Your task to perform on an android device: Open eBay Image 0: 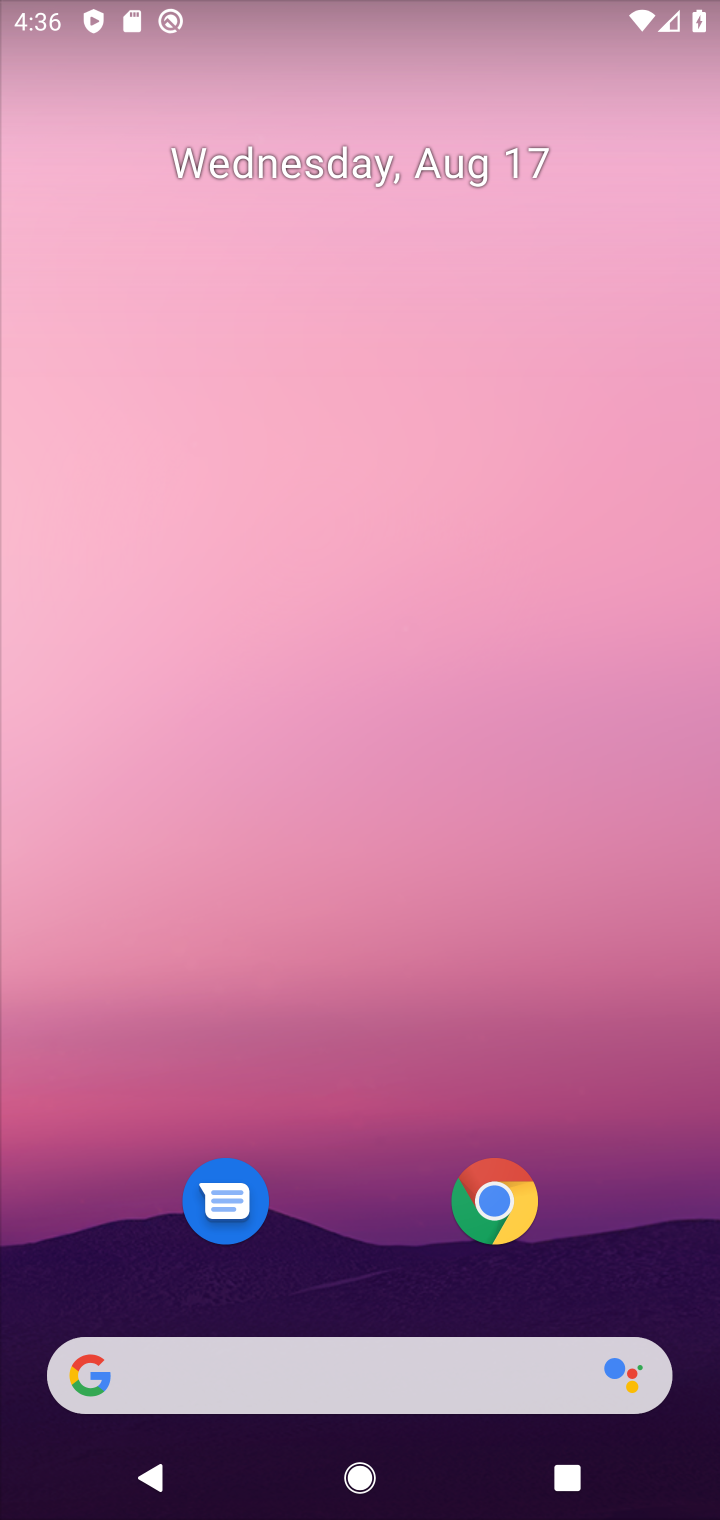
Step 0: click (71, 1382)
Your task to perform on an android device: Open eBay Image 1: 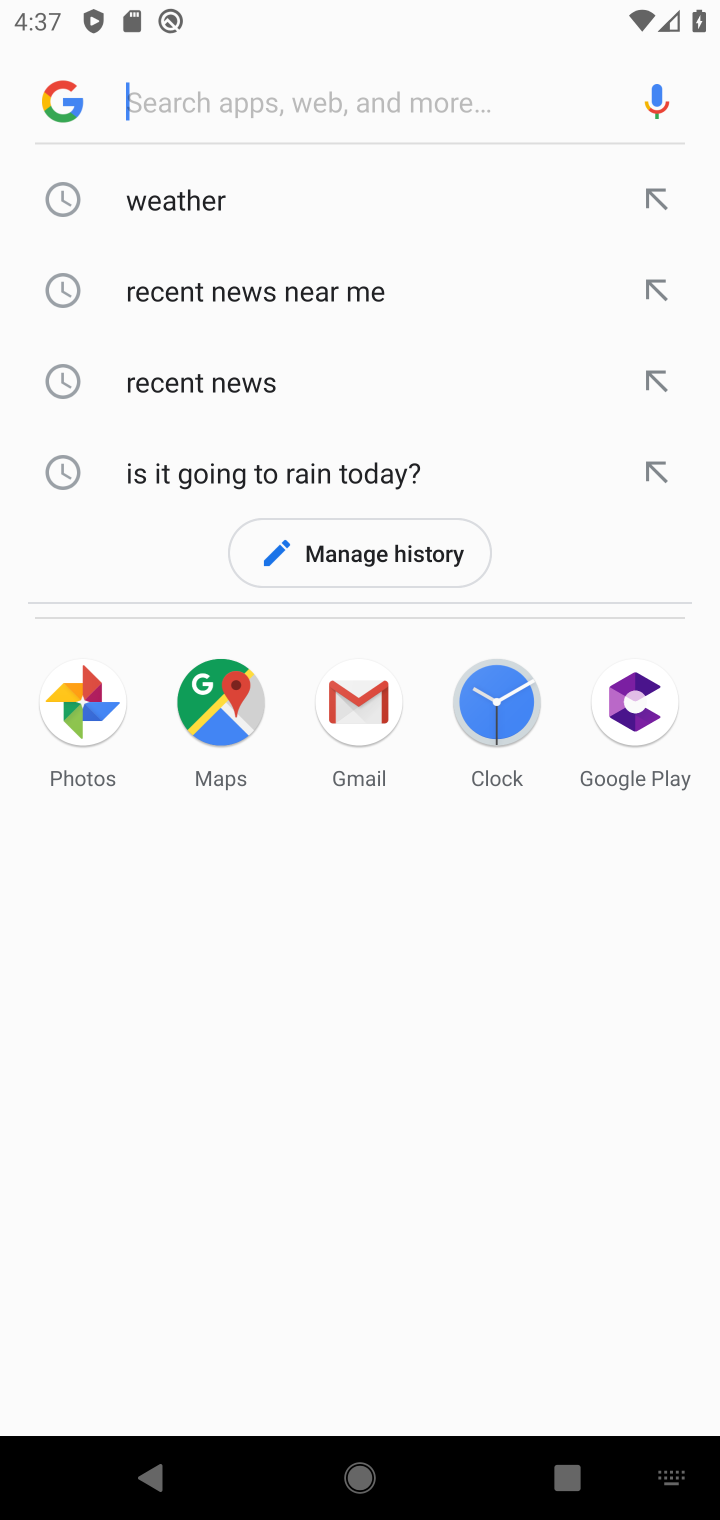
Step 1: type "eBay"
Your task to perform on an android device: Open eBay Image 2: 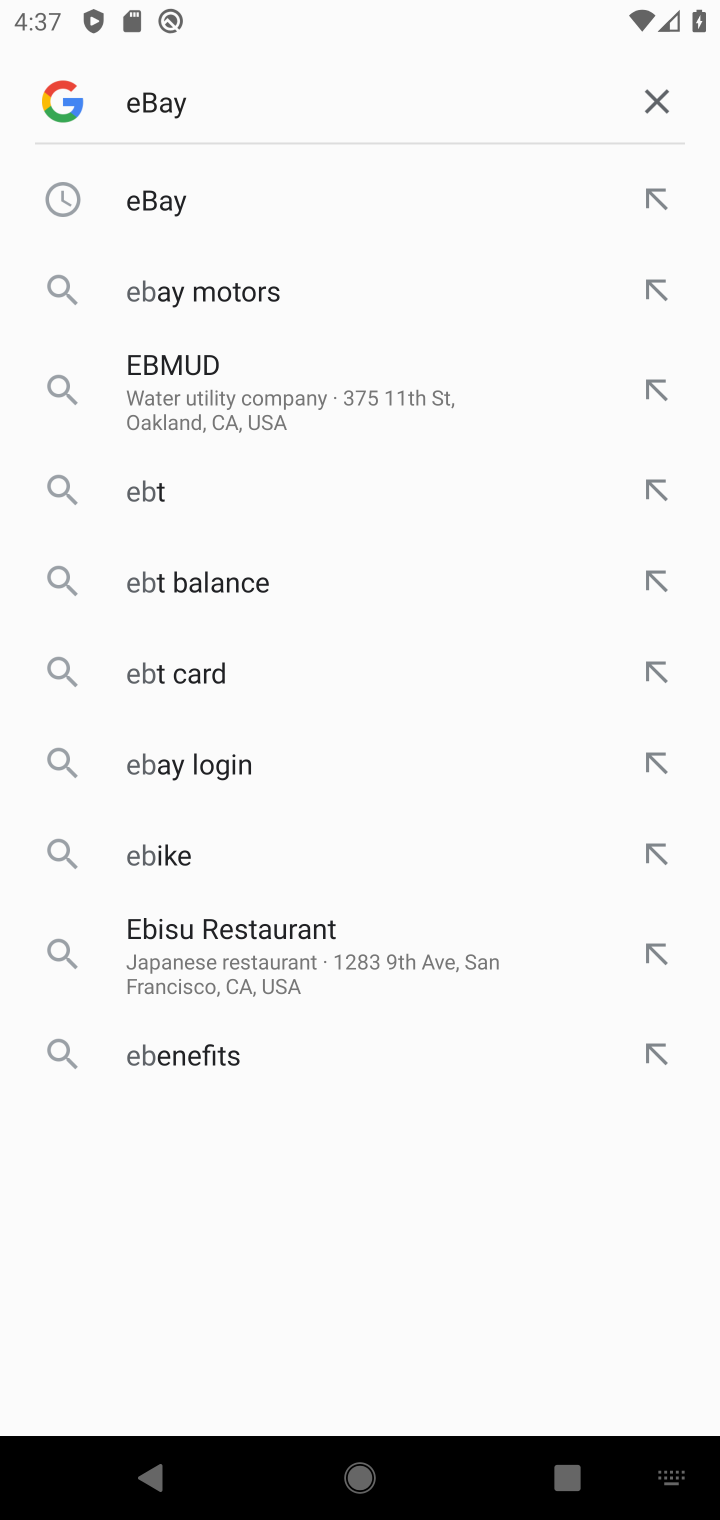
Step 2: press enter
Your task to perform on an android device: Open eBay Image 3: 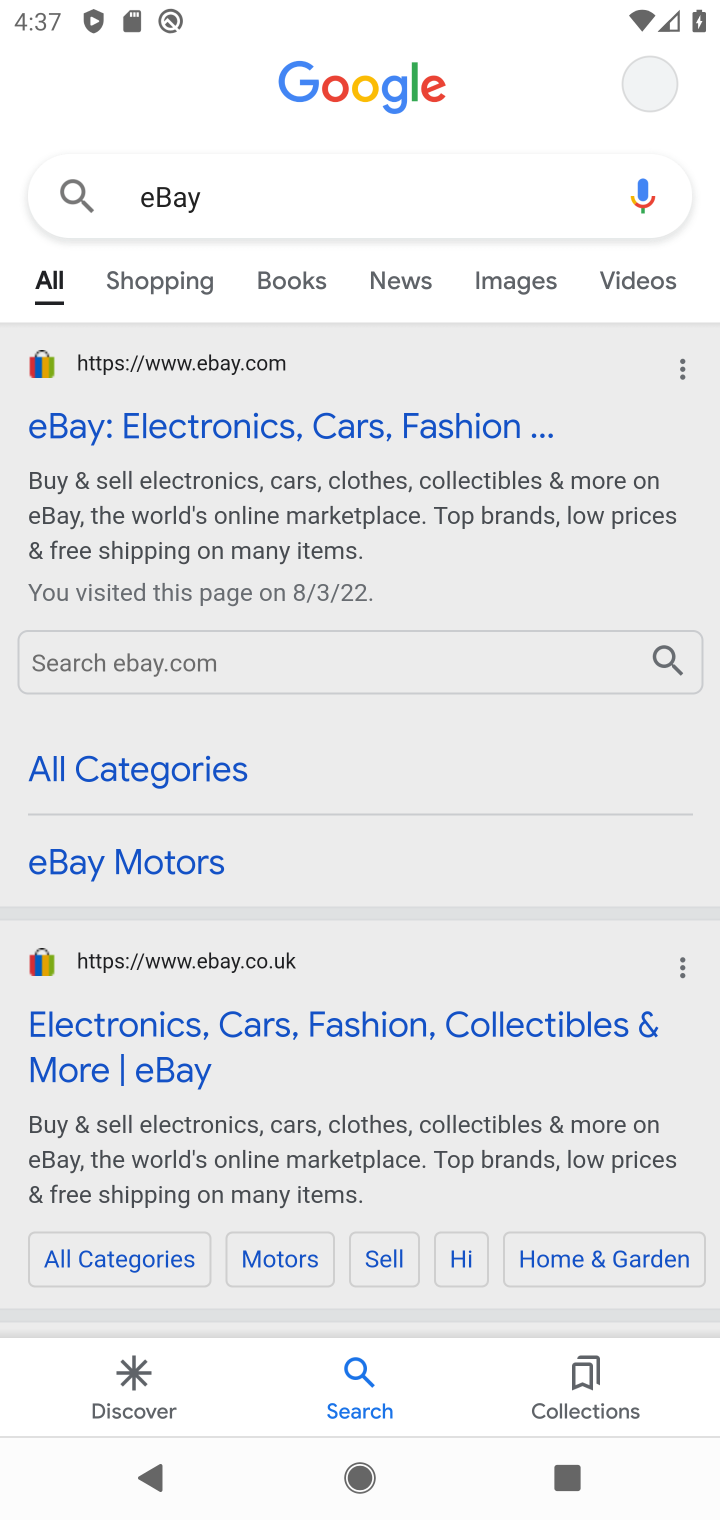
Step 3: click (195, 273)
Your task to perform on an android device: Open eBay Image 4: 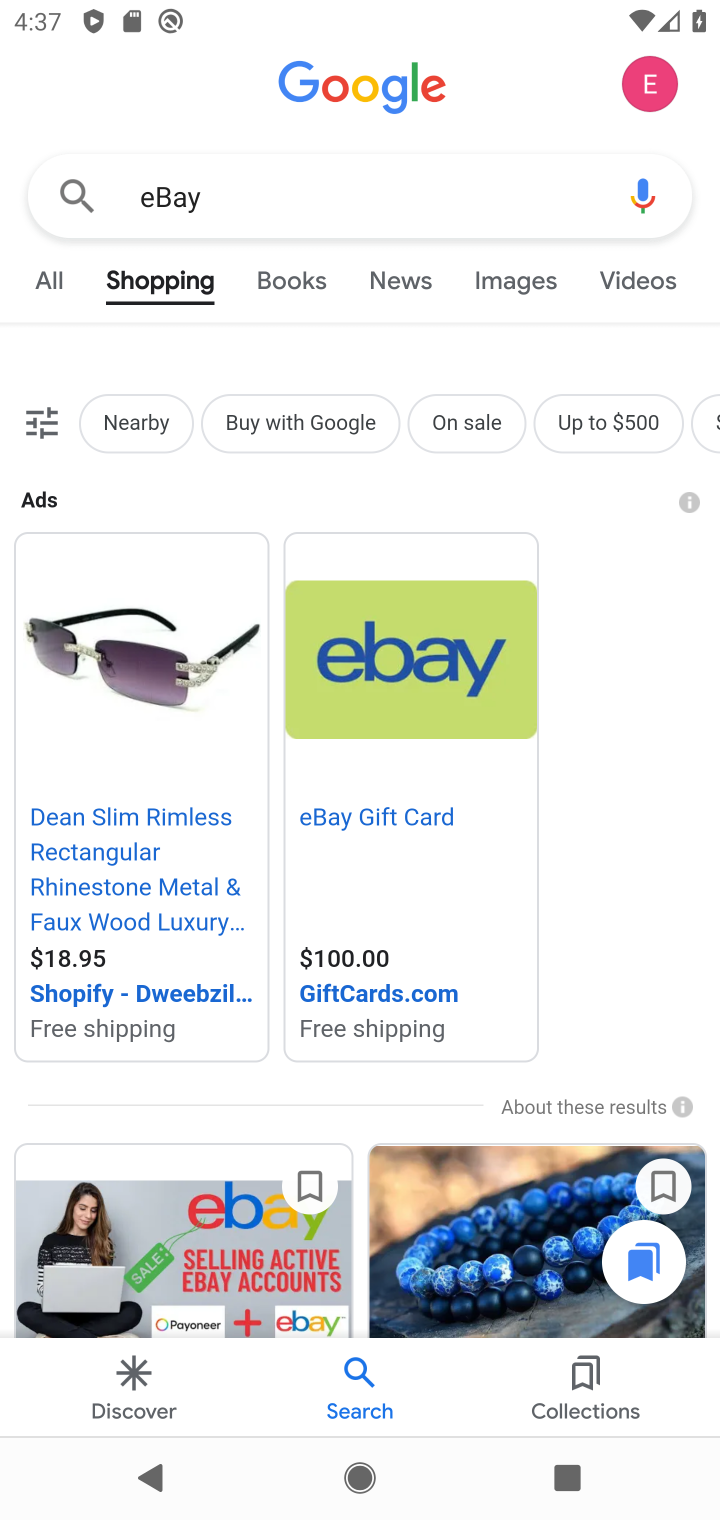
Step 4: task complete